Your task to perform on an android device: toggle translation in the chrome app Image 0: 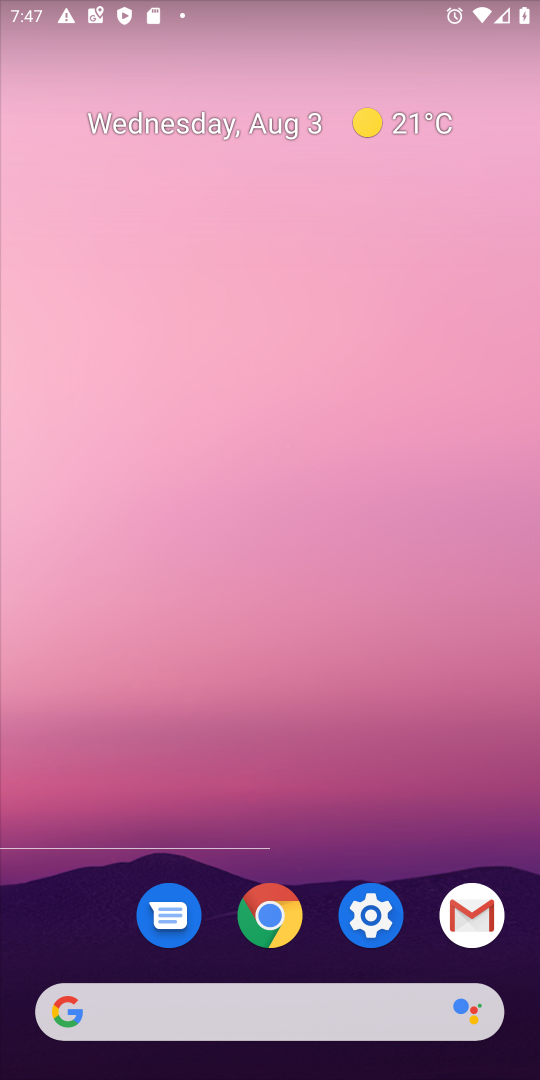
Step 0: drag from (295, 1053) to (293, 150)
Your task to perform on an android device: toggle translation in the chrome app Image 1: 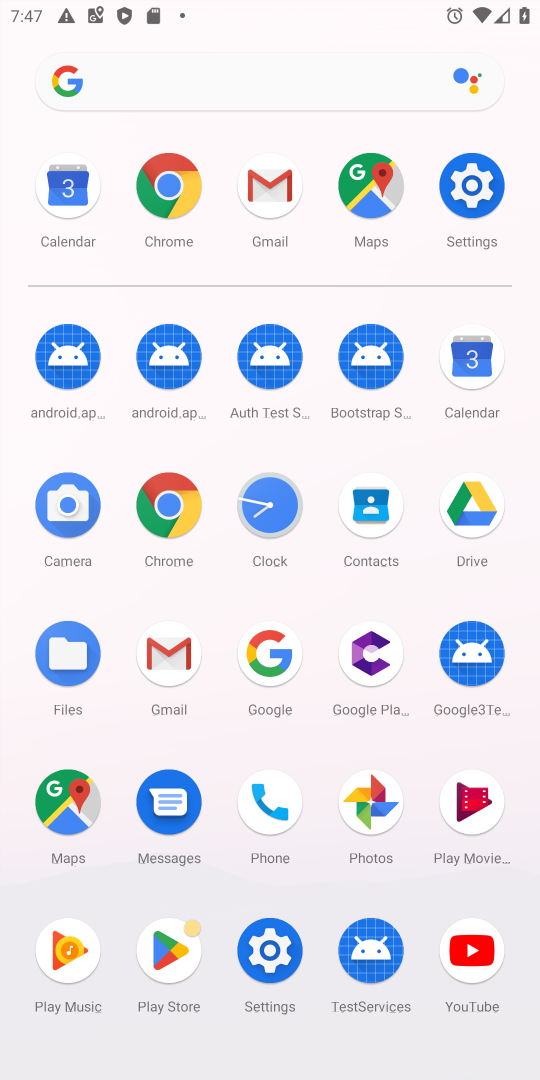
Step 1: click (170, 176)
Your task to perform on an android device: toggle translation in the chrome app Image 2: 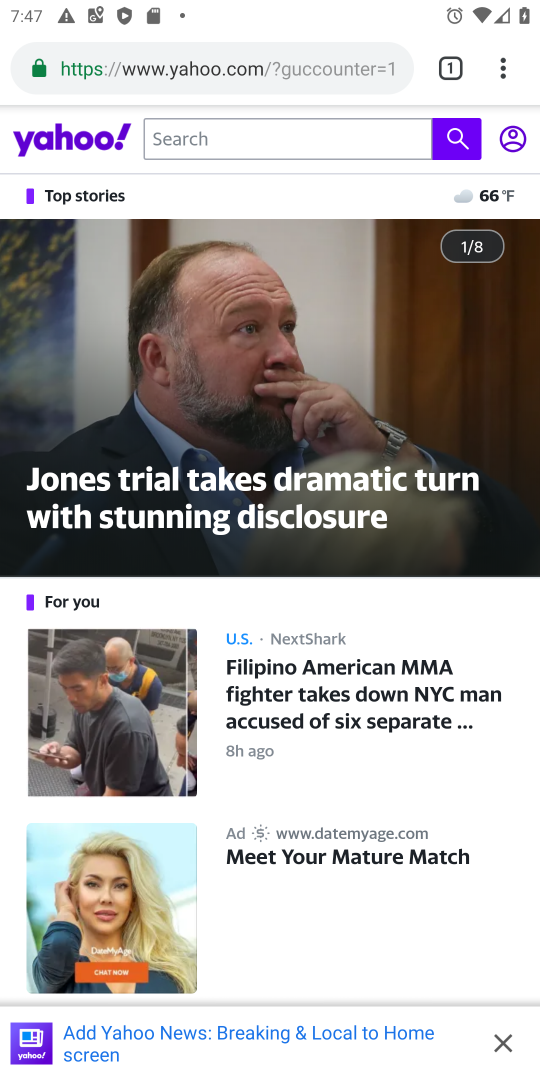
Step 2: click (500, 64)
Your task to perform on an android device: toggle translation in the chrome app Image 3: 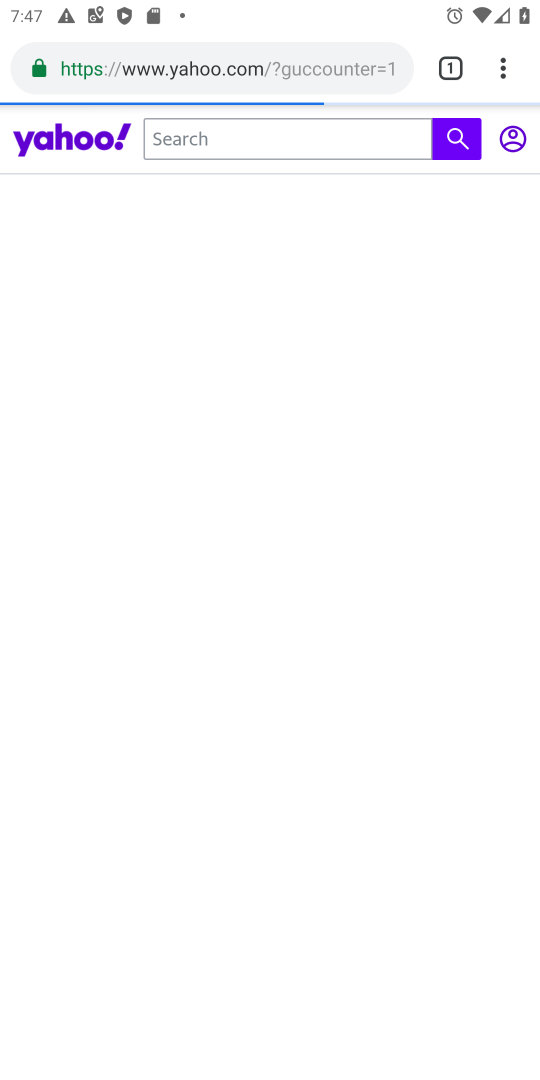
Step 3: click (510, 64)
Your task to perform on an android device: toggle translation in the chrome app Image 4: 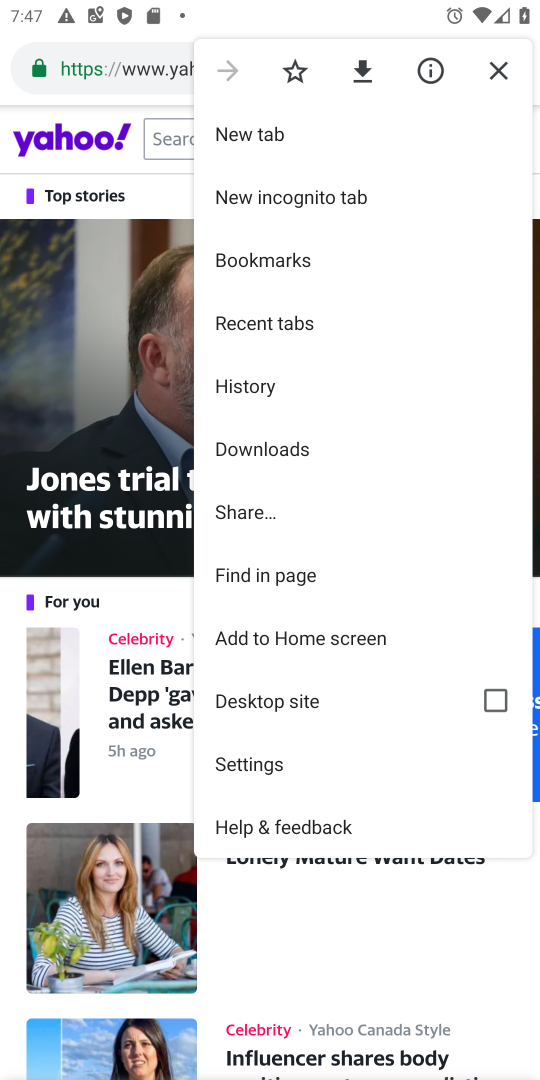
Step 4: click (247, 760)
Your task to perform on an android device: toggle translation in the chrome app Image 5: 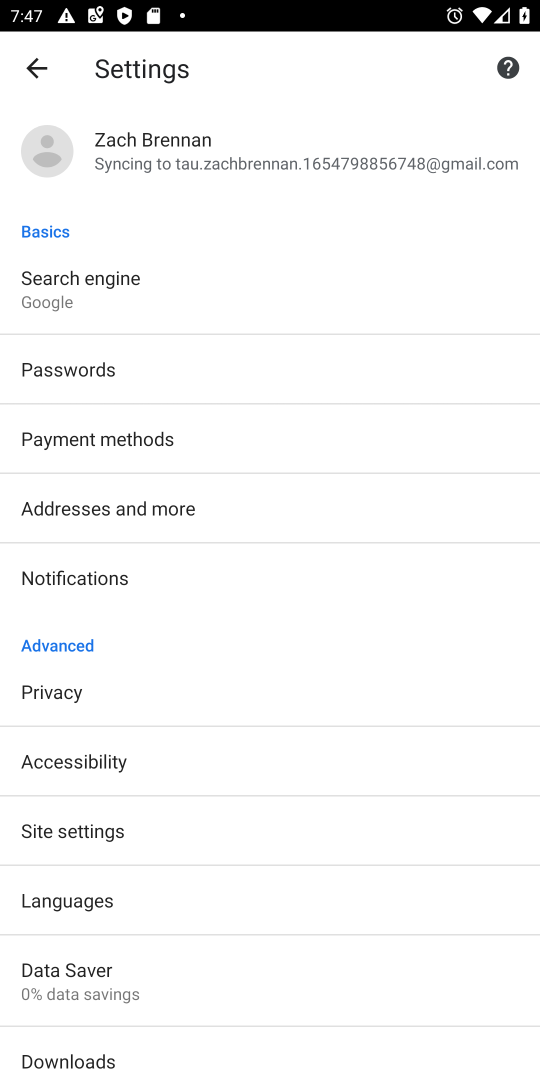
Step 5: click (122, 902)
Your task to perform on an android device: toggle translation in the chrome app Image 6: 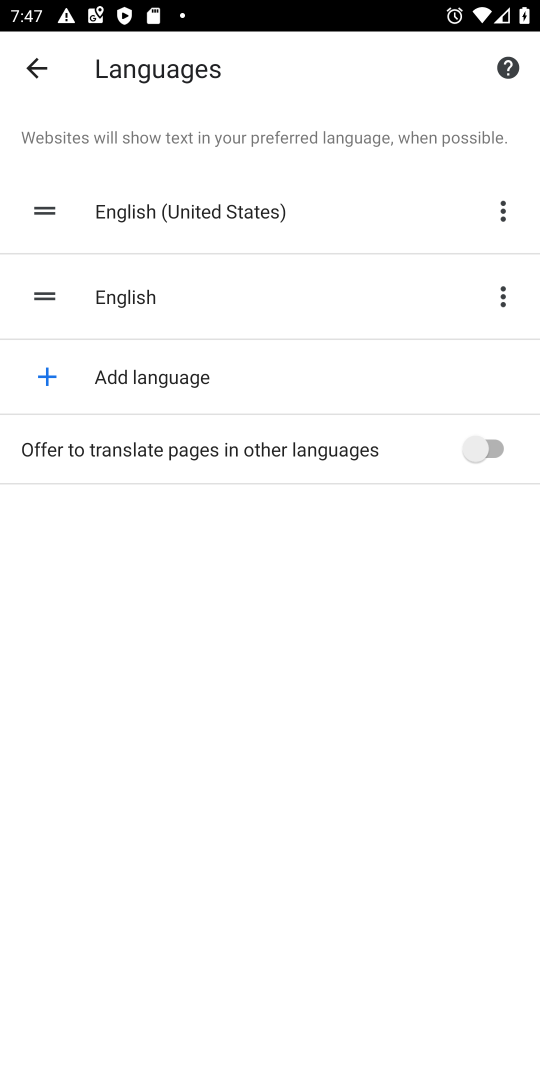
Step 6: click (494, 463)
Your task to perform on an android device: toggle translation in the chrome app Image 7: 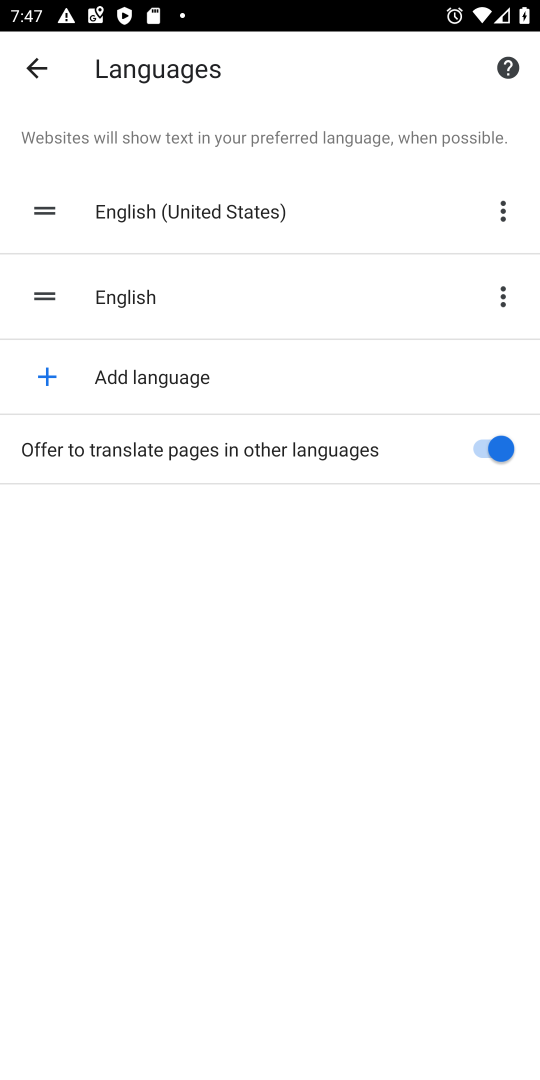
Step 7: click (500, 451)
Your task to perform on an android device: toggle translation in the chrome app Image 8: 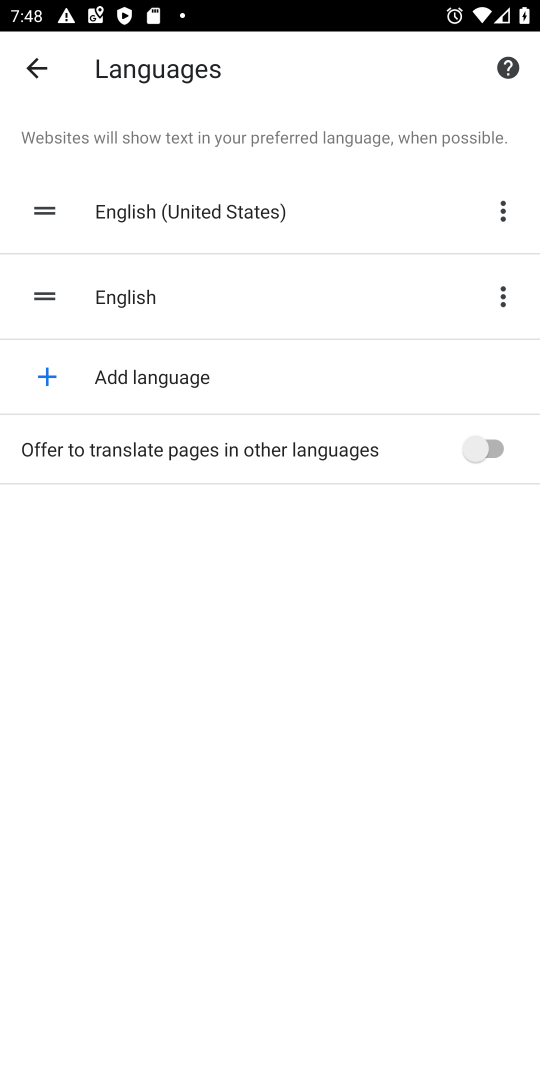
Step 8: task complete